Your task to perform on an android device: turn on the 24-hour format for clock Image 0: 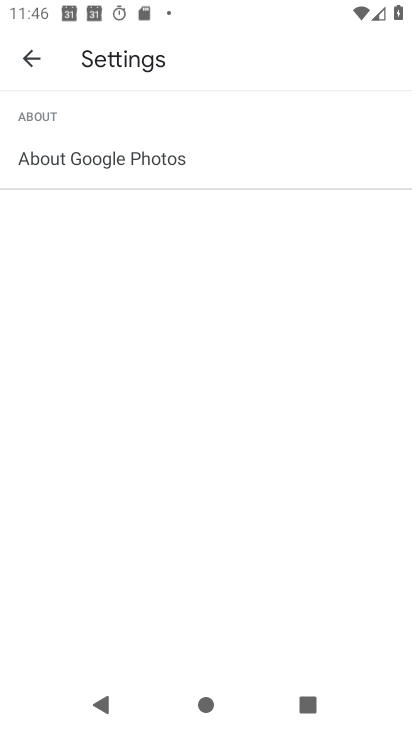
Step 0: press home button
Your task to perform on an android device: turn on the 24-hour format for clock Image 1: 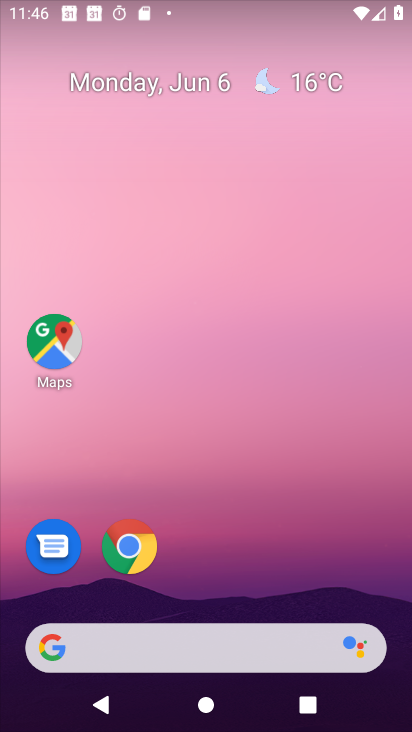
Step 1: drag from (225, 567) to (360, 61)
Your task to perform on an android device: turn on the 24-hour format for clock Image 2: 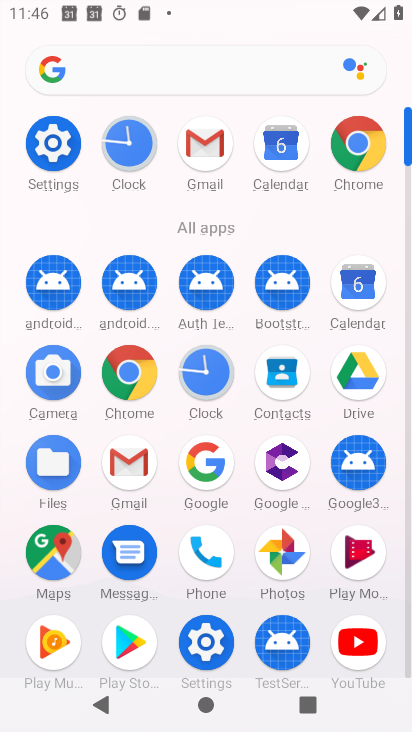
Step 2: click (202, 627)
Your task to perform on an android device: turn on the 24-hour format for clock Image 3: 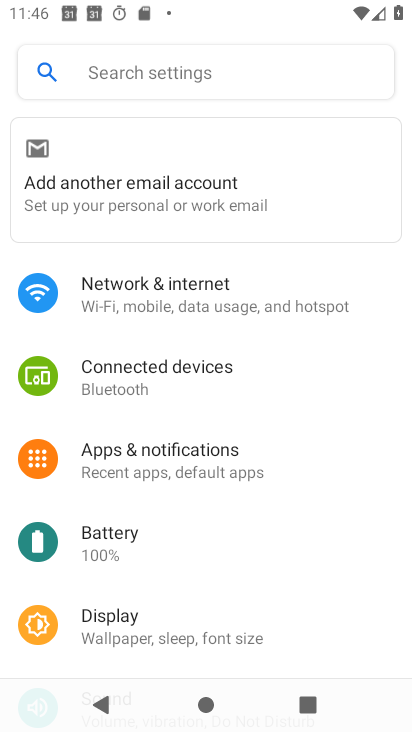
Step 3: drag from (164, 574) to (261, 184)
Your task to perform on an android device: turn on the 24-hour format for clock Image 4: 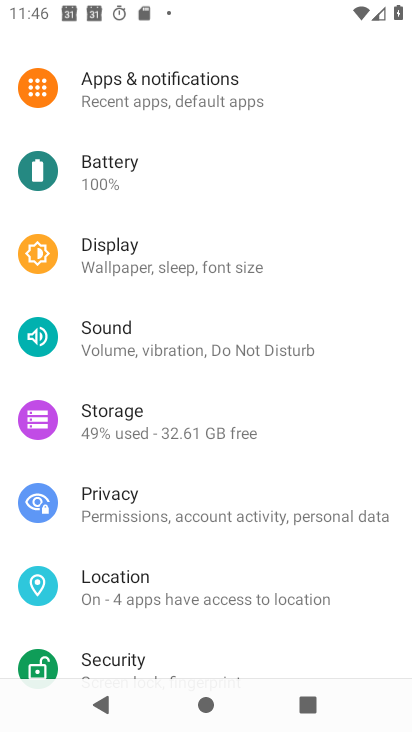
Step 4: drag from (184, 609) to (250, 12)
Your task to perform on an android device: turn on the 24-hour format for clock Image 5: 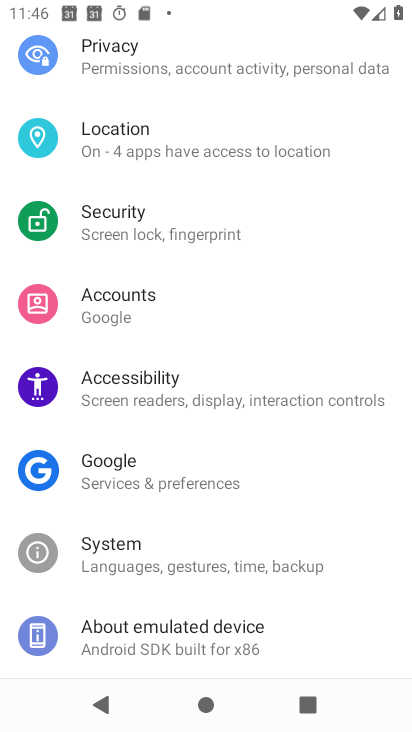
Step 5: drag from (205, 565) to (235, 254)
Your task to perform on an android device: turn on the 24-hour format for clock Image 6: 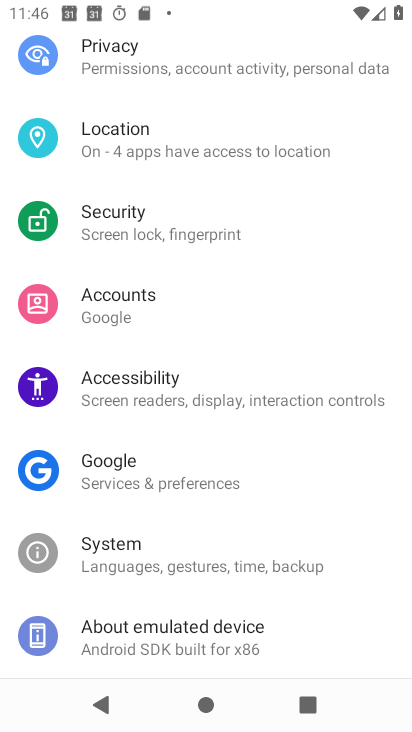
Step 6: click (169, 572)
Your task to perform on an android device: turn on the 24-hour format for clock Image 7: 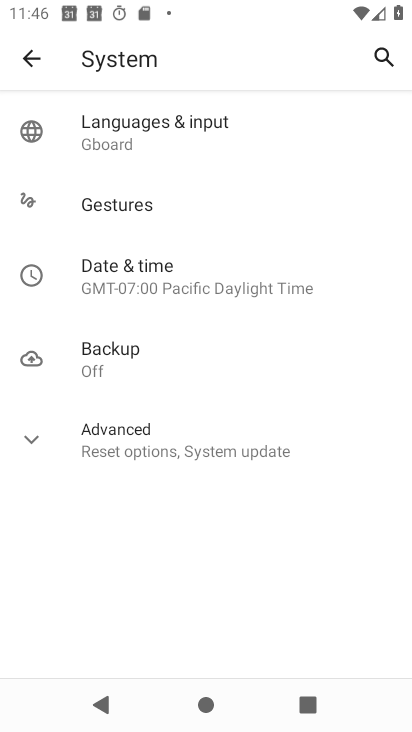
Step 7: click (163, 272)
Your task to perform on an android device: turn on the 24-hour format for clock Image 8: 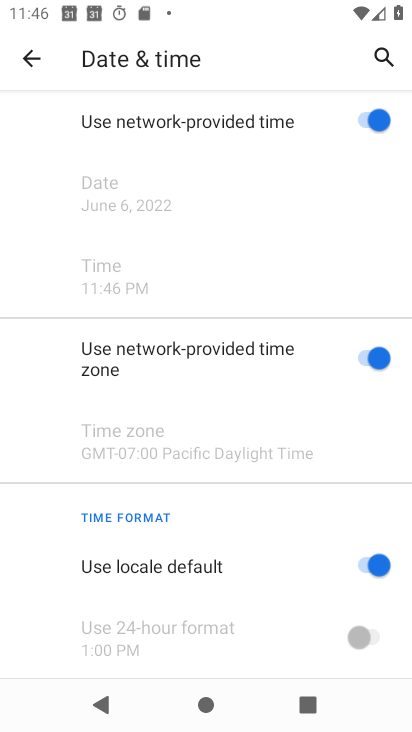
Step 8: click (356, 556)
Your task to perform on an android device: turn on the 24-hour format for clock Image 9: 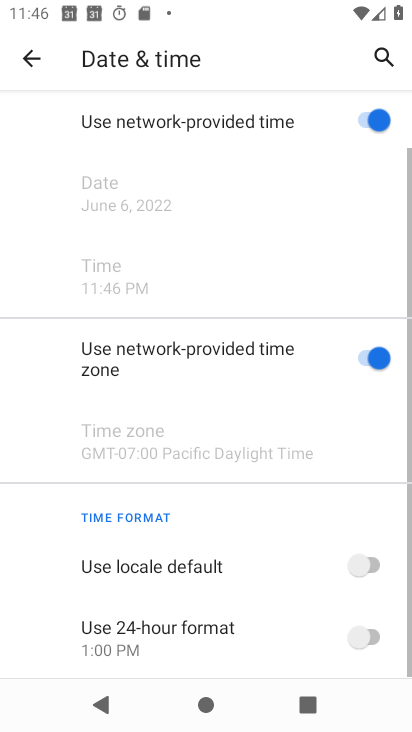
Step 9: click (381, 627)
Your task to perform on an android device: turn on the 24-hour format for clock Image 10: 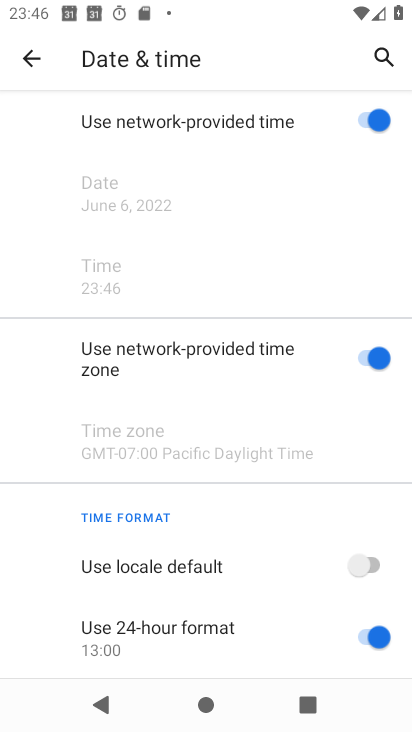
Step 10: task complete